Your task to perform on an android device: delete browsing data in the chrome app Image 0: 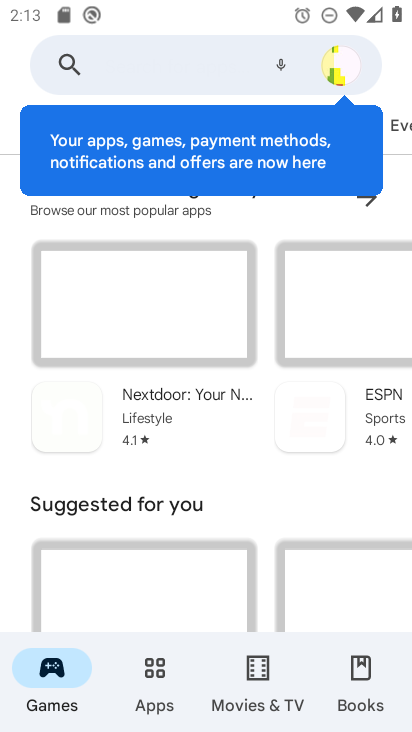
Step 0: press home button
Your task to perform on an android device: delete browsing data in the chrome app Image 1: 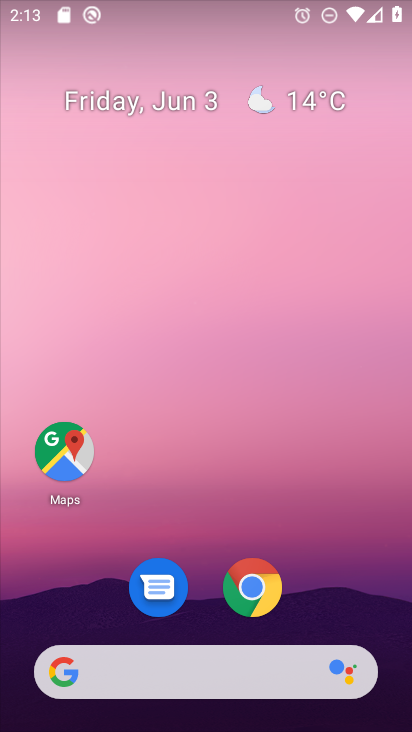
Step 1: click (256, 586)
Your task to perform on an android device: delete browsing data in the chrome app Image 2: 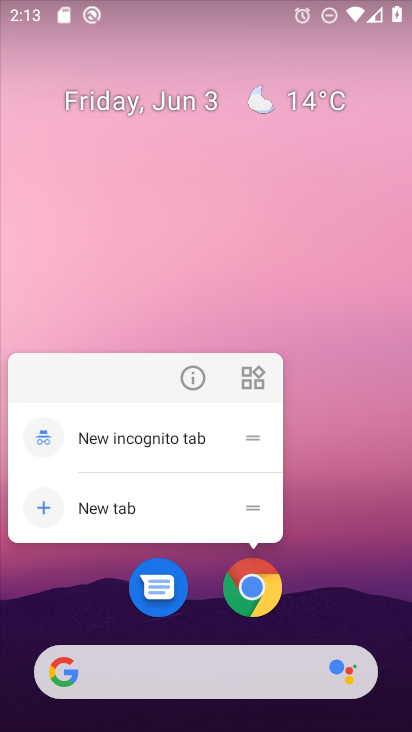
Step 2: click (257, 584)
Your task to perform on an android device: delete browsing data in the chrome app Image 3: 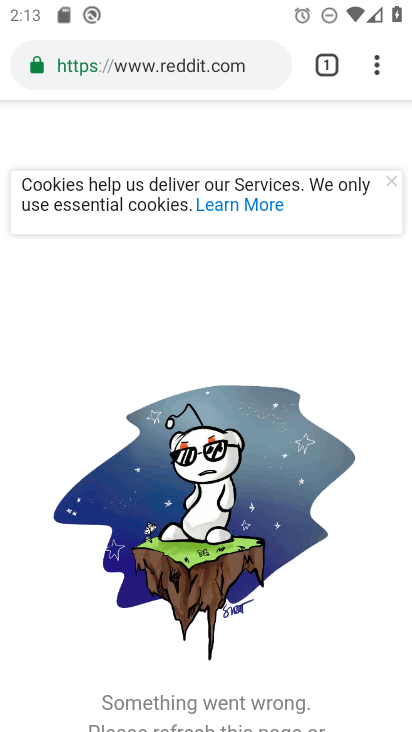
Step 3: click (368, 67)
Your task to perform on an android device: delete browsing data in the chrome app Image 4: 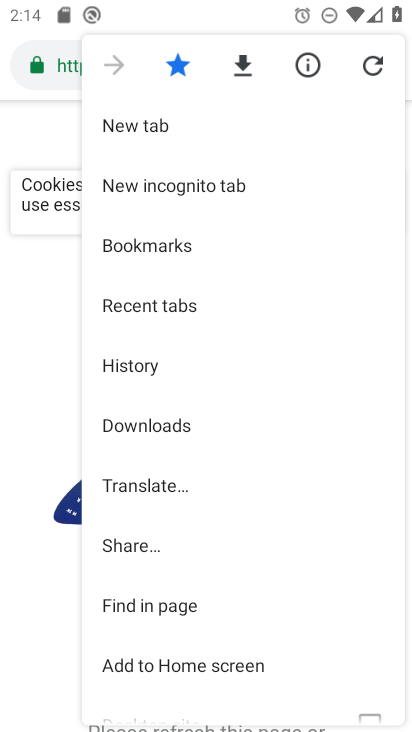
Step 4: click (130, 358)
Your task to perform on an android device: delete browsing data in the chrome app Image 5: 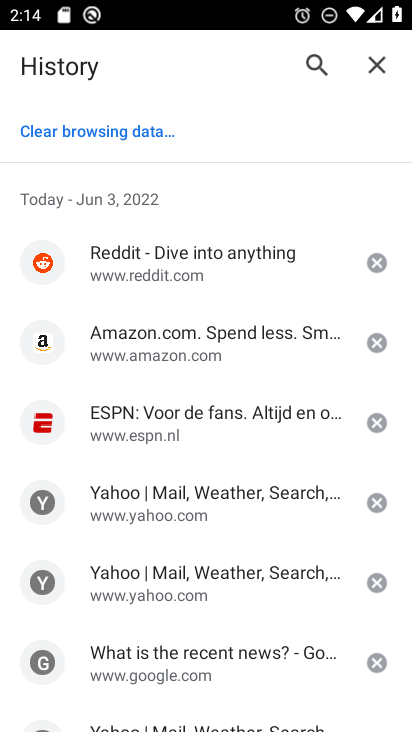
Step 5: click (76, 147)
Your task to perform on an android device: delete browsing data in the chrome app Image 6: 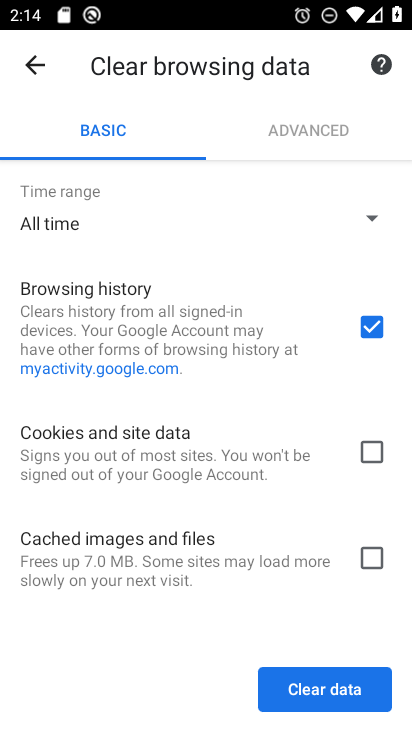
Step 6: click (323, 416)
Your task to perform on an android device: delete browsing data in the chrome app Image 7: 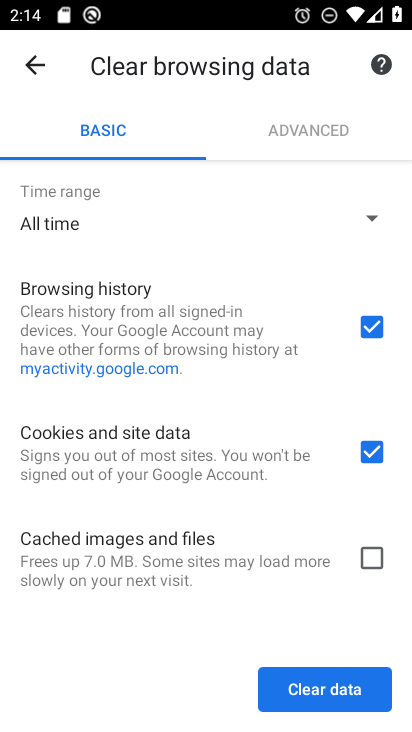
Step 7: click (318, 567)
Your task to perform on an android device: delete browsing data in the chrome app Image 8: 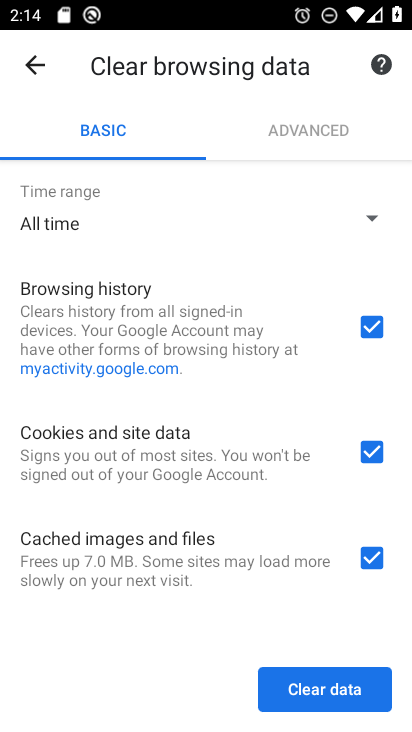
Step 8: click (338, 692)
Your task to perform on an android device: delete browsing data in the chrome app Image 9: 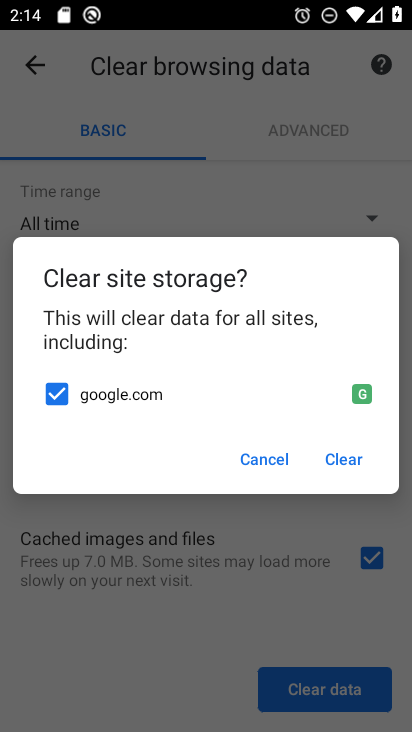
Step 9: click (347, 457)
Your task to perform on an android device: delete browsing data in the chrome app Image 10: 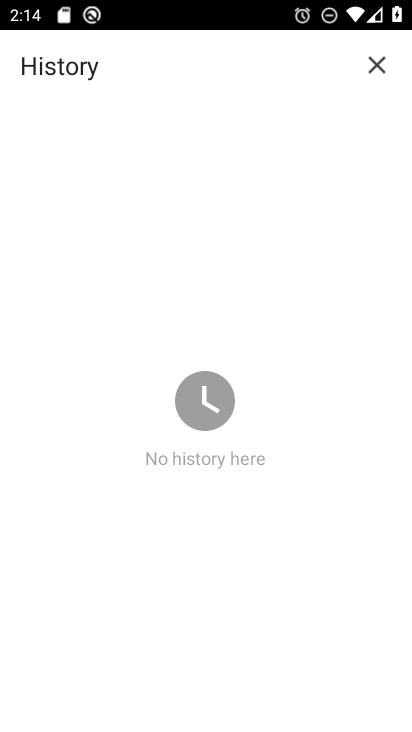
Step 10: task complete